Your task to perform on an android device: Add "asus zenbook" to the cart on bestbuy.com Image 0: 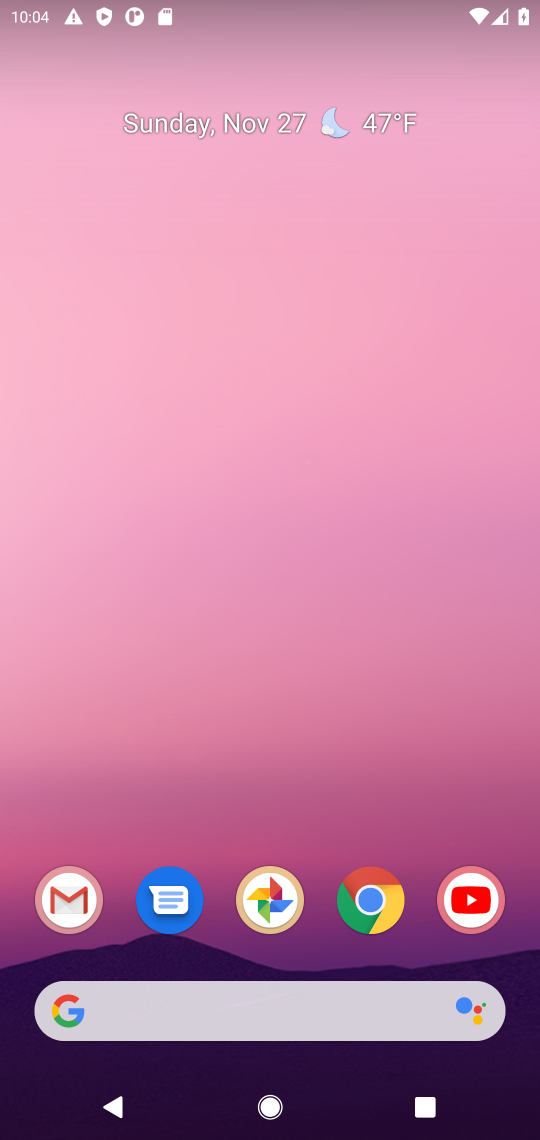
Step 0: click (370, 903)
Your task to perform on an android device: Add "asus zenbook" to the cart on bestbuy.com Image 1: 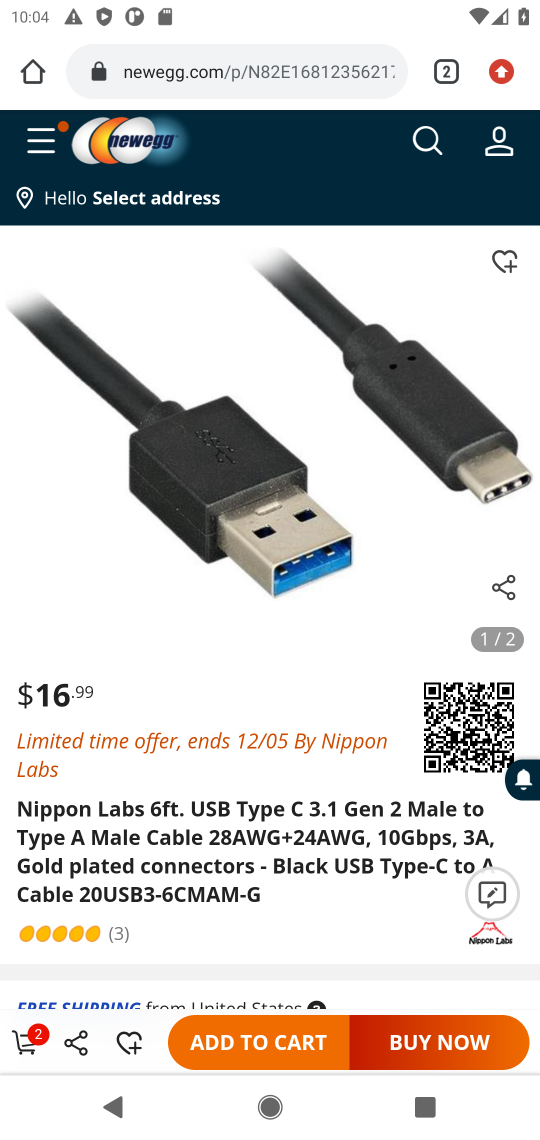
Step 1: click (249, 67)
Your task to perform on an android device: Add "asus zenbook" to the cart on bestbuy.com Image 2: 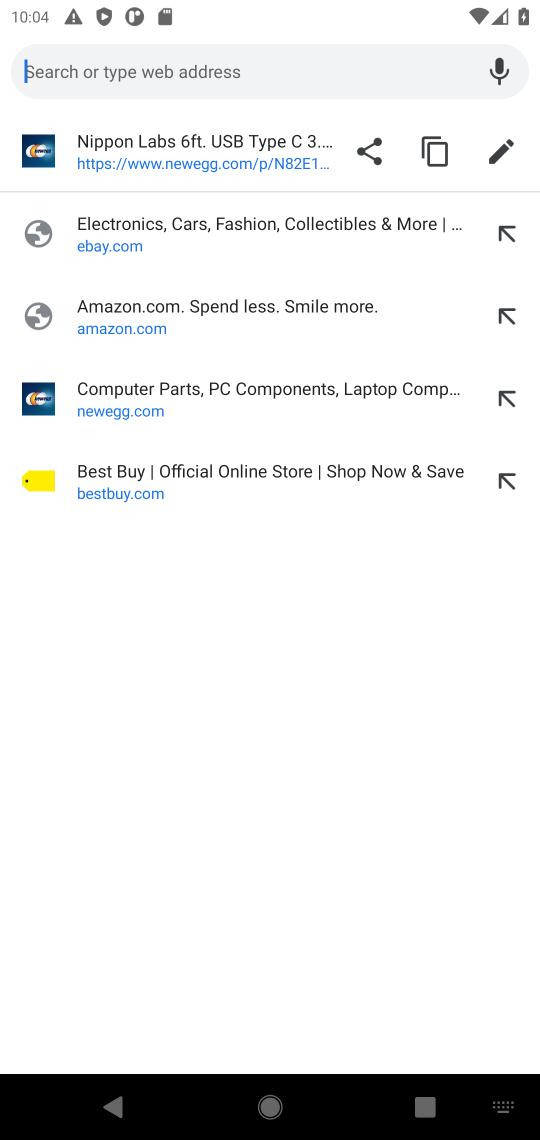
Step 2: click (112, 482)
Your task to perform on an android device: Add "asus zenbook" to the cart on bestbuy.com Image 3: 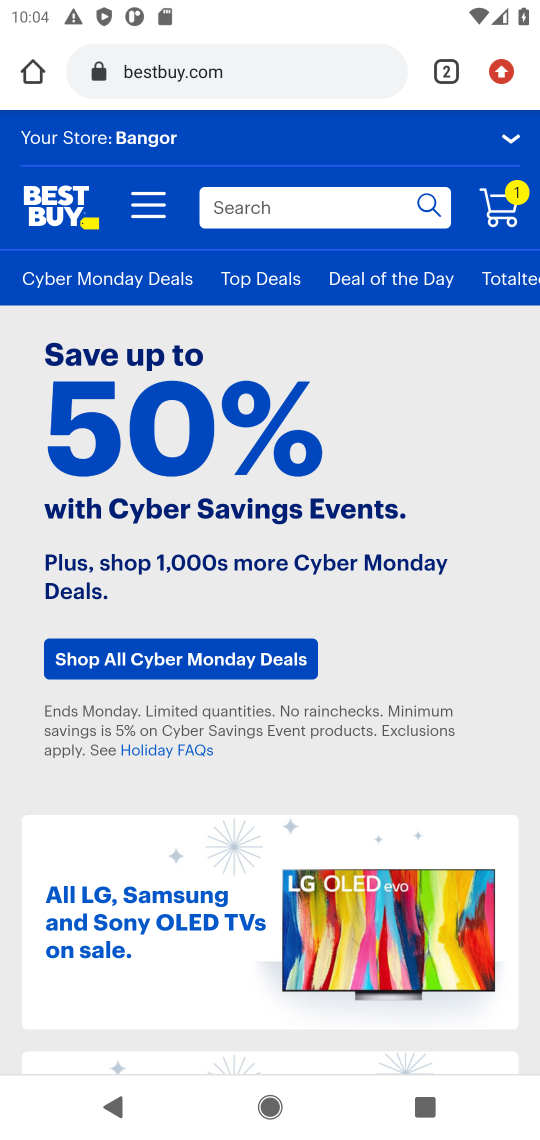
Step 3: click (285, 213)
Your task to perform on an android device: Add "asus zenbook" to the cart on bestbuy.com Image 4: 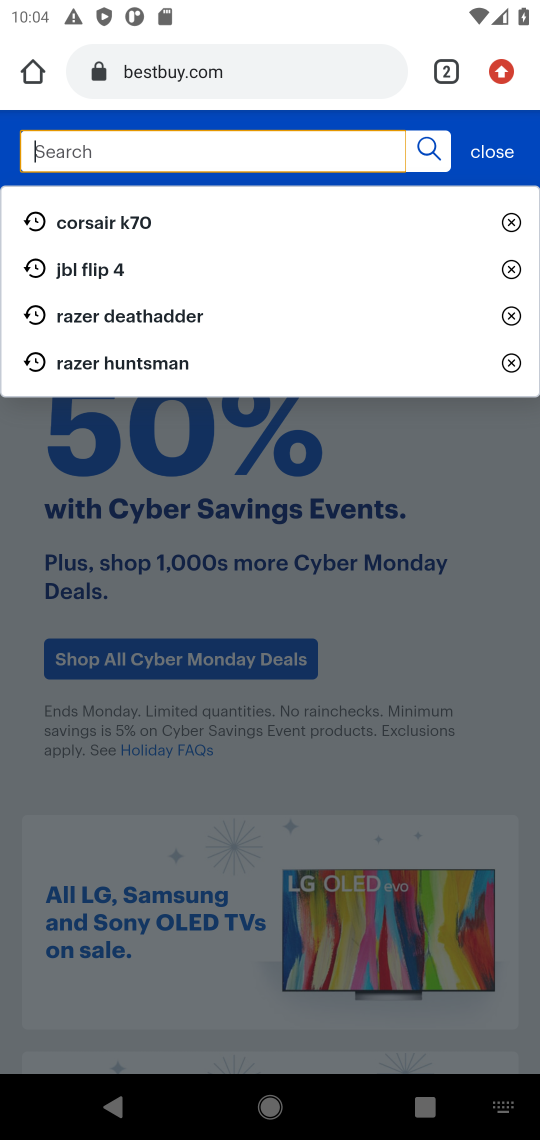
Step 4: type "asus zenbook"
Your task to perform on an android device: Add "asus zenbook" to the cart on bestbuy.com Image 5: 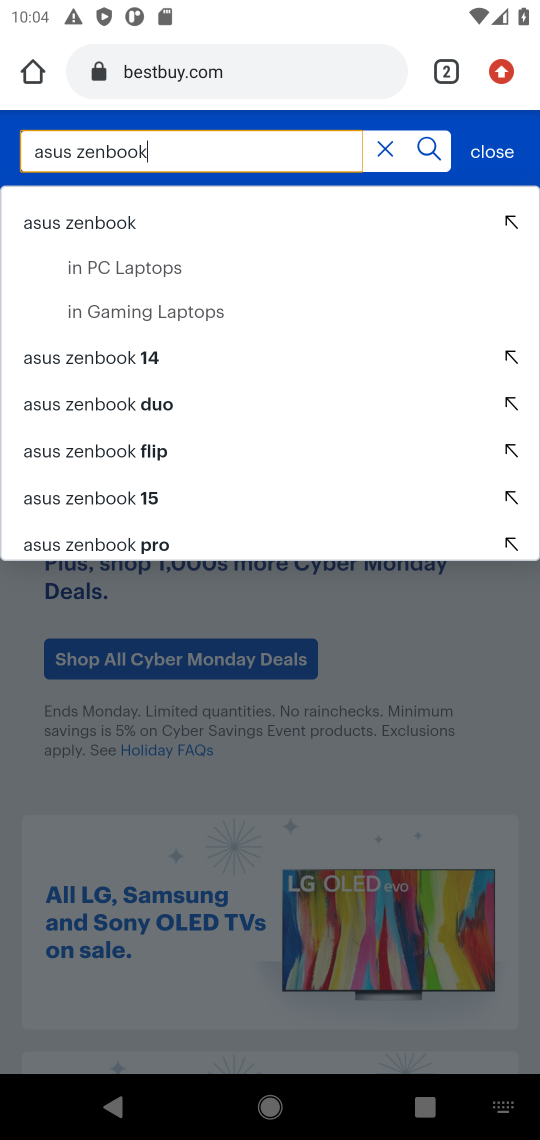
Step 5: click (92, 227)
Your task to perform on an android device: Add "asus zenbook" to the cart on bestbuy.com Image 6: 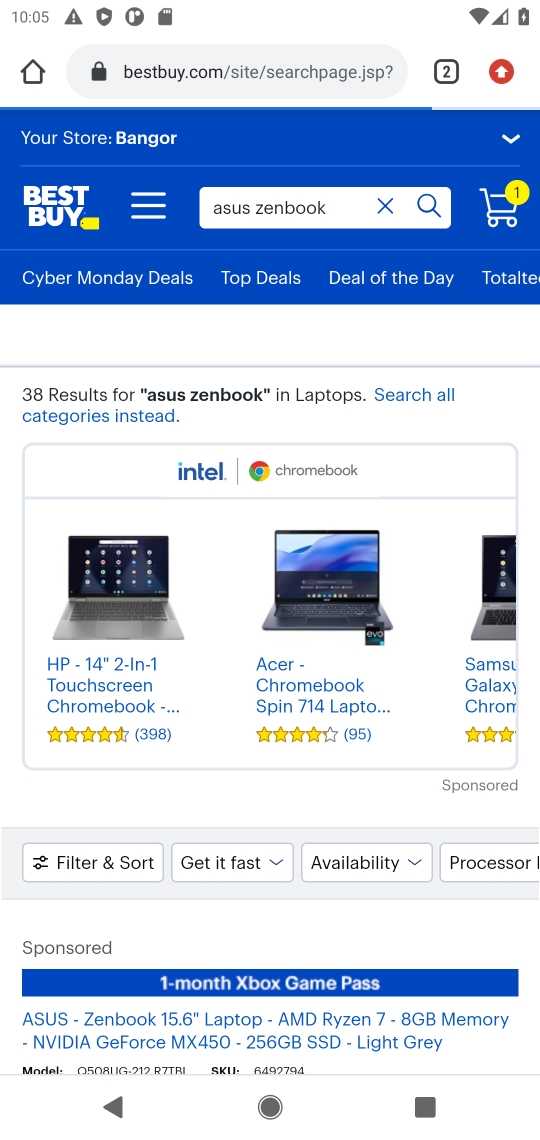
Step 6: drag from (210, 916) to (262, 469)
Your task to perform on an android device: Add "asus zenbook" to the cart on bestbuy.com Image 7: 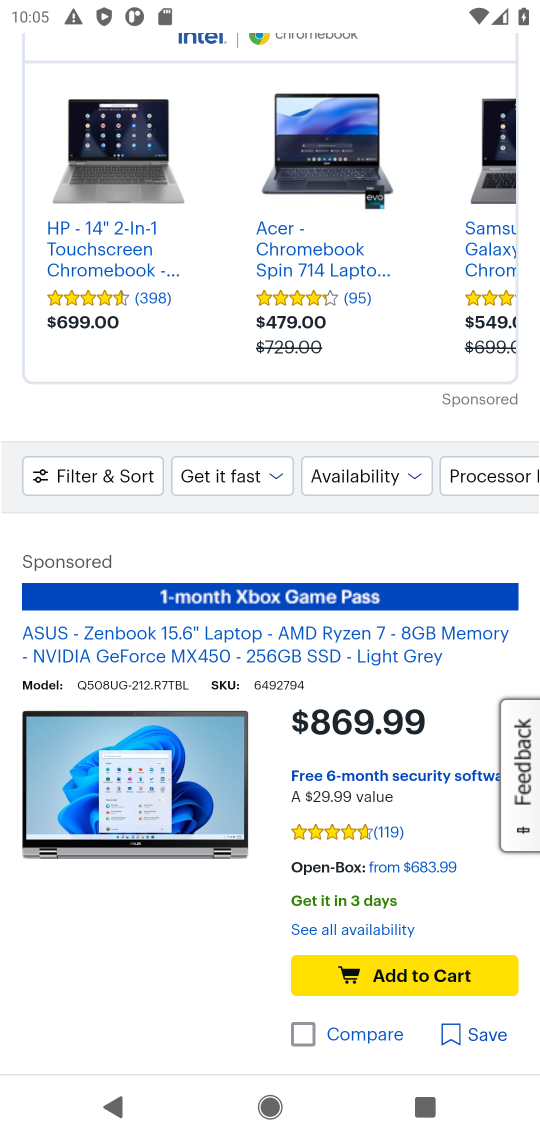
Step 7: click (411, 968)
Your task to perform on an android device: Add "asus zenbook" to the cart on bestbuy.com Image 8: 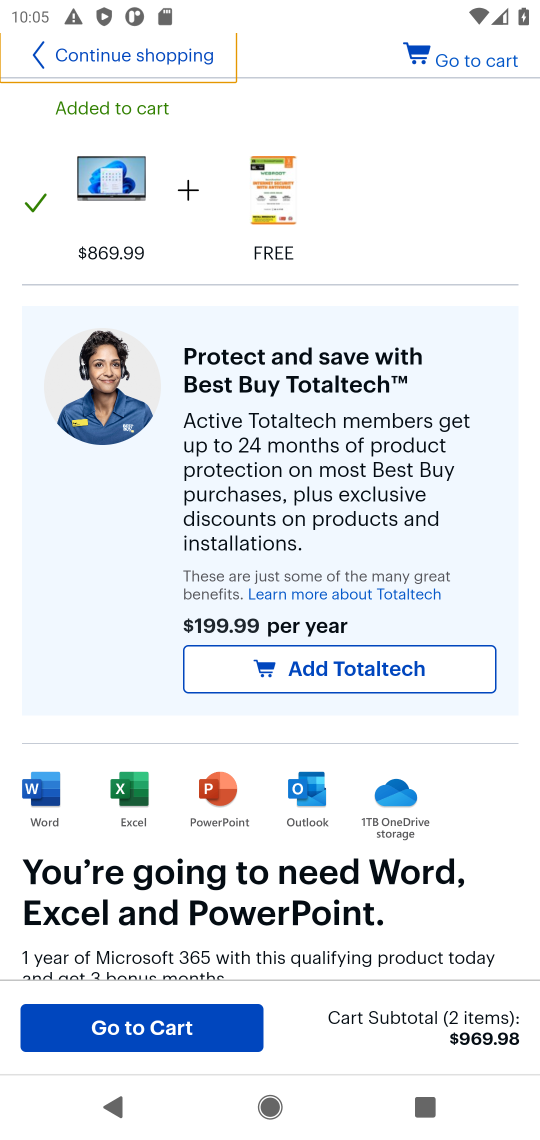
Step 8: task complete